Your task to perform on an android device: Open the map Image 0: 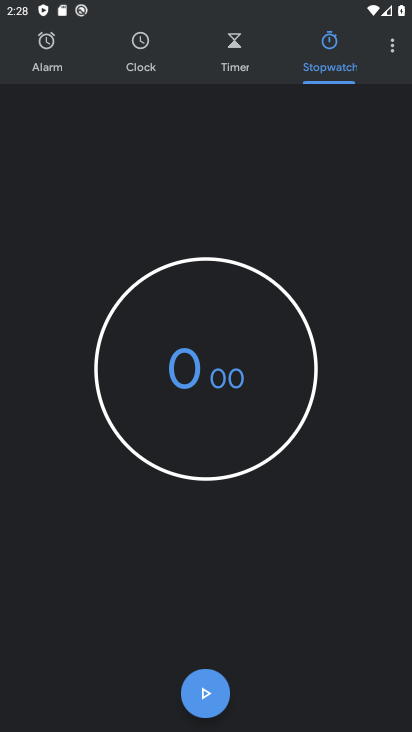
Step 0: press home button
Your task to perform on an android device: Open the map Image 1: 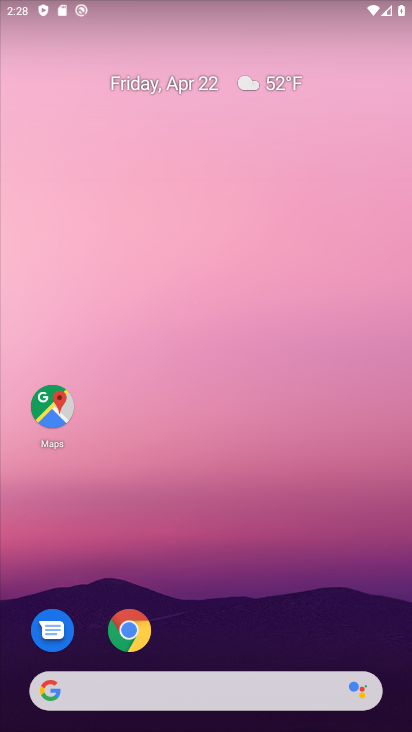
Step 1: click (46, 404)
Your task to perform on an android device: Open the map Image 2: 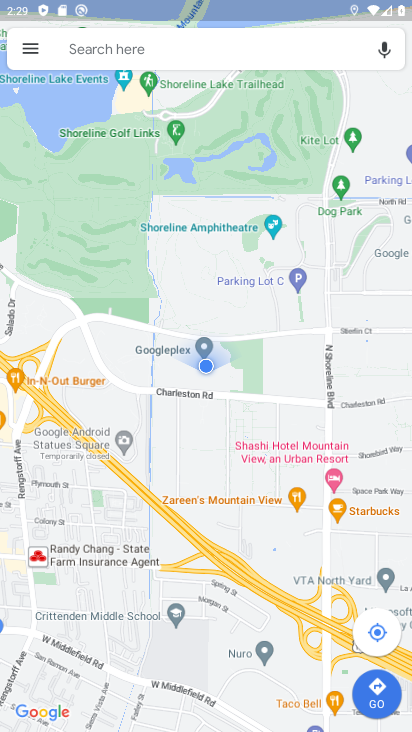
Step 2: task complete